Your task to perform on an android device: open sync settings in chrome Image 0: 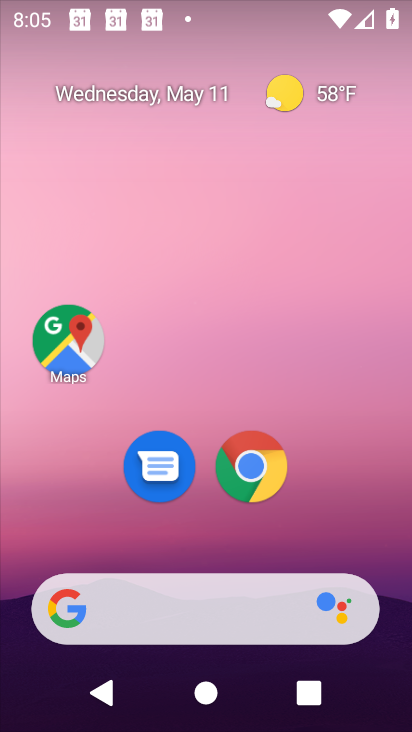
Step 0: click (238, 464)
Your task to perform on an android device: open sync settings in chrome Image 1: 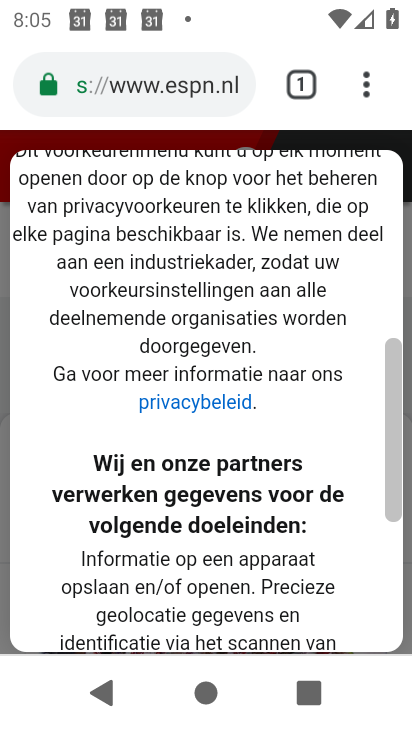
Step 1: click (350, 88)
Your task to perform on an android device: open sync settings in chrome Image 2: 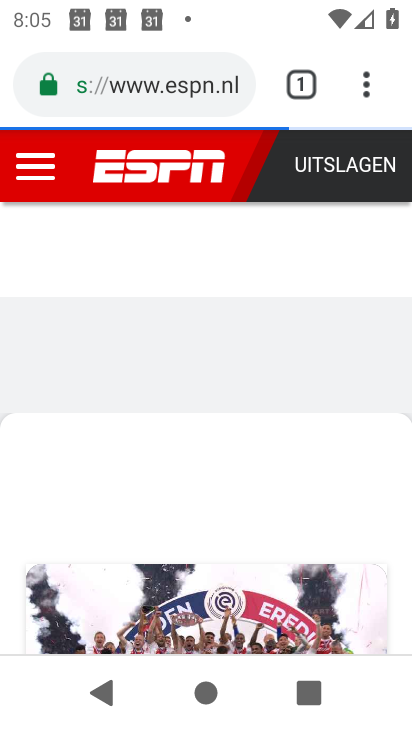
Step 2: click (379, 118)
Your task to perform on an android device: open sync settings in chrome Image 3: 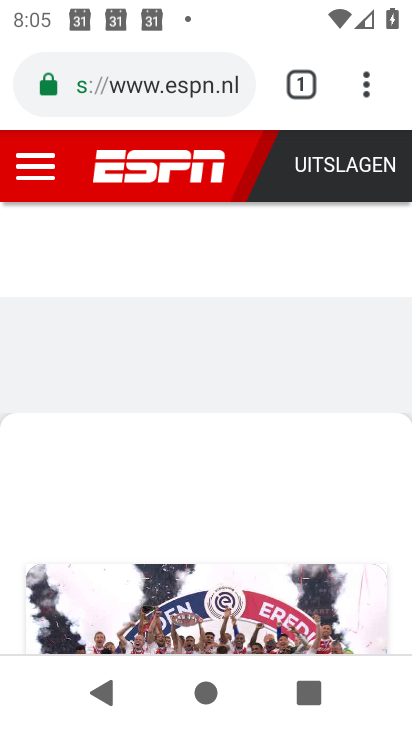
Step 3: click (404, 92)
Your task to perform on an android device: open sync settings in chrome Image 4: 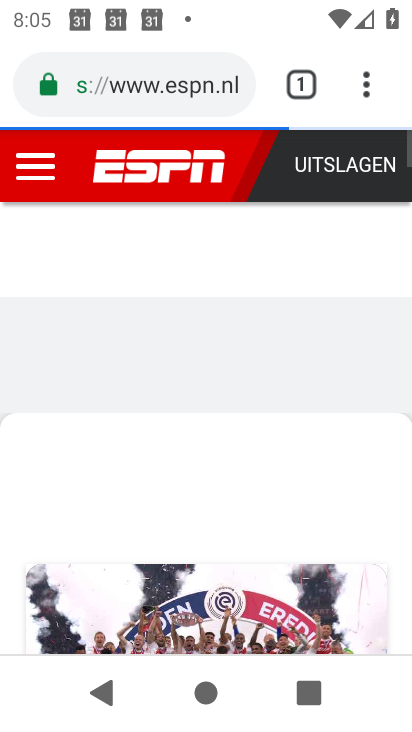
Step 4: click (400, 59)
Your task to perform on an android device: open sync settings in chrome Image 5: 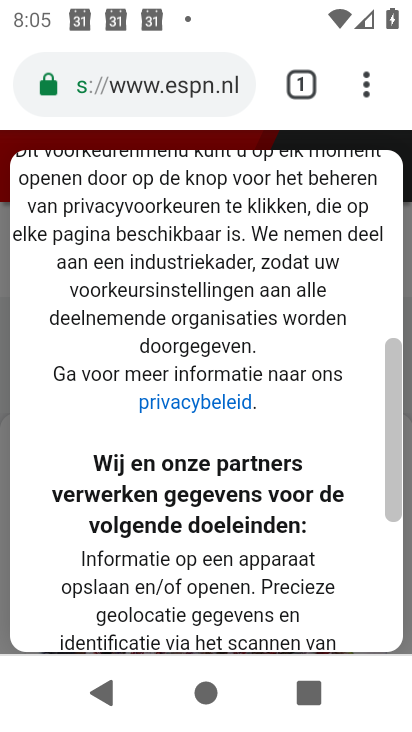
Step 5: click (373, 63)
Your task to perform on an android device: open sync settings in chrome Image 6: 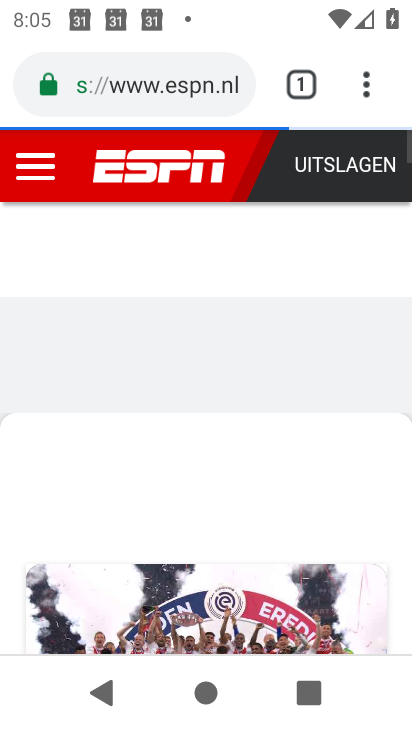
Step 6: click (359, 102)
Your task to perform on an android device: open sync settings in chrome Image 7: 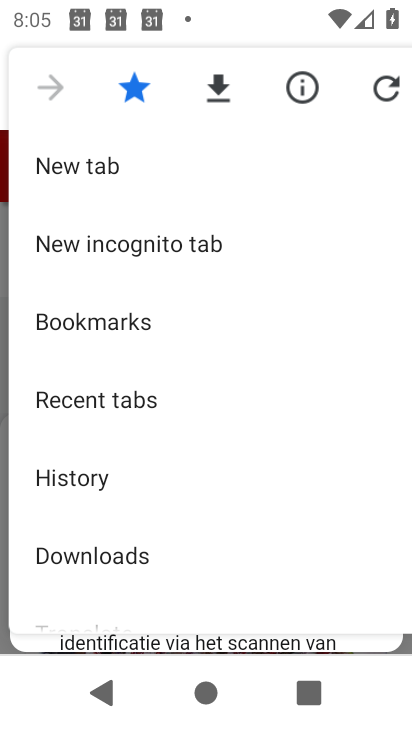
Step 7: drag from (85, 535) to (75, 353)
Your task to perform on an android device: open sync settings in chrome Image 8: 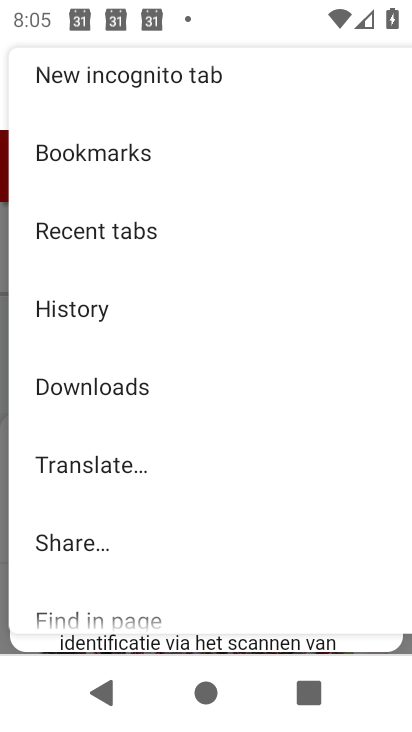
Step 8: drag from (126, 510) to (125, 380)
Your task to perform on an android device: open sync settings in chrome Image 9: 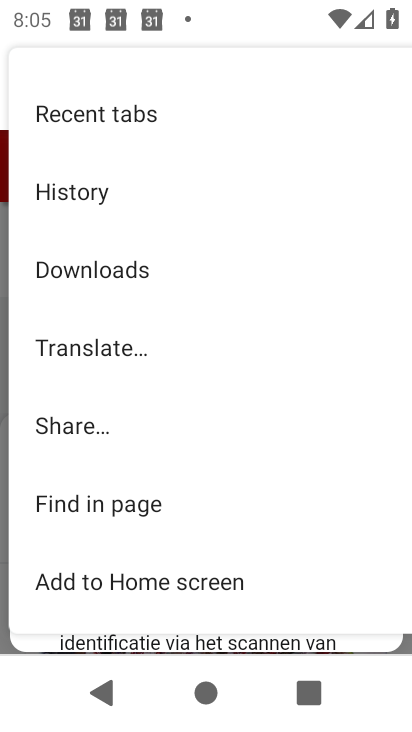
Step 9: drag from (124, 488) to (121, 370)
Your task to perform on an android device: open sync settings in chrome Image 10: 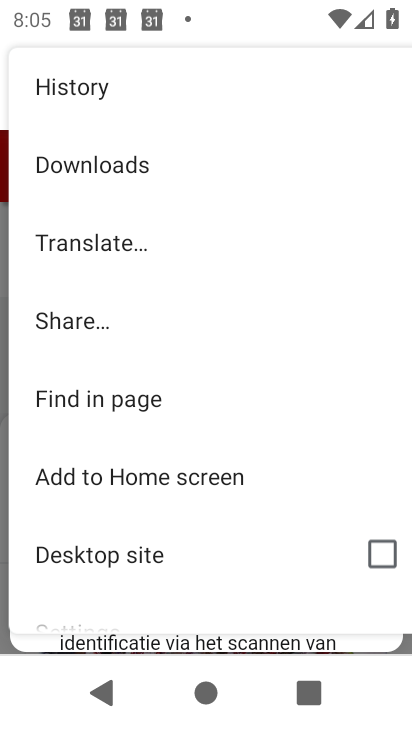
Step 10: drag from (141, 542) to (134, 384)
Your task to perform on an android device: open sync settings in chrome Image 11: 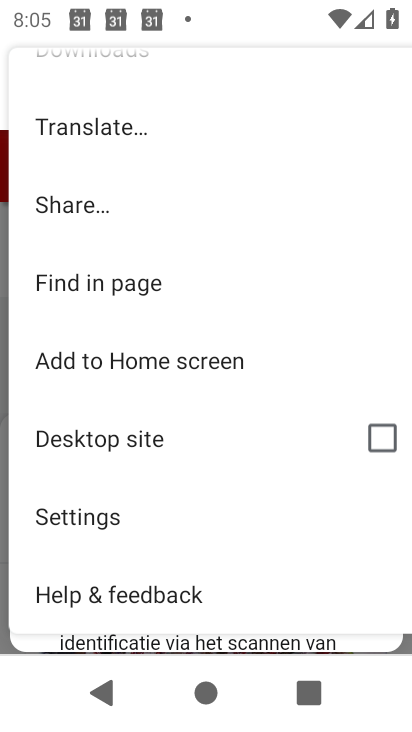
Step 11: click (115, 519)
Your task to perform on an android device: open sync settings in chrome Image 12: 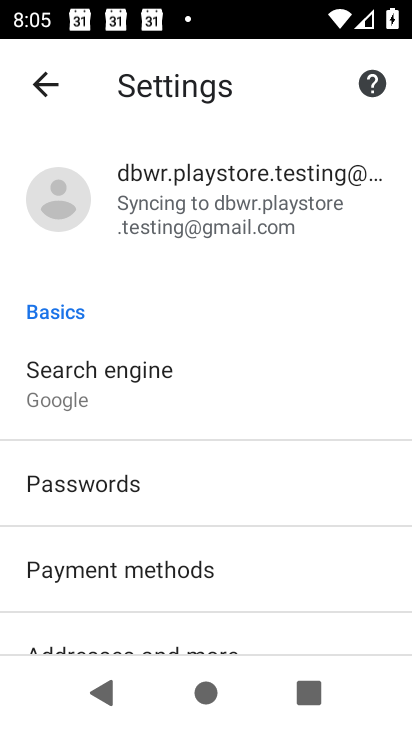
Step 12: drag from (103, 554) to (93, 452)
Your task to perform on an android device: open sync settings in chrome Image 13: 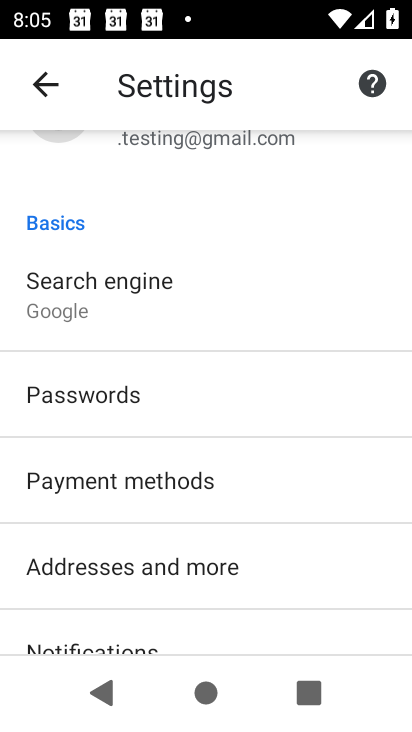
Step 13: drag from (101, 572) to (96, 711)
Your task to perform on an android device: open sync settings in chrome Image 14: 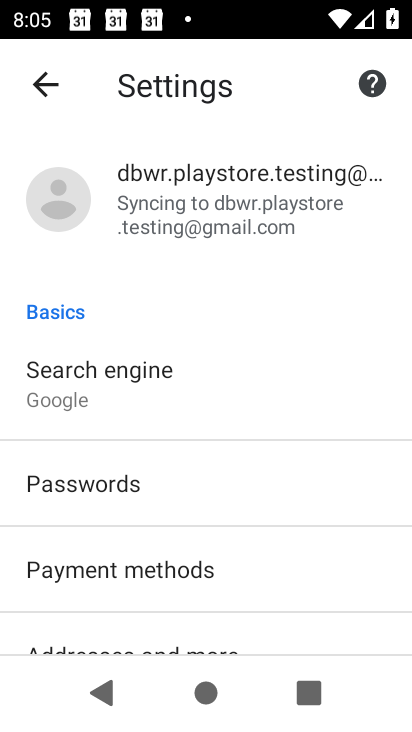
Step 14: click (210, 211)
Your task to perform on an android device: open sync settings in chrome Image 15: 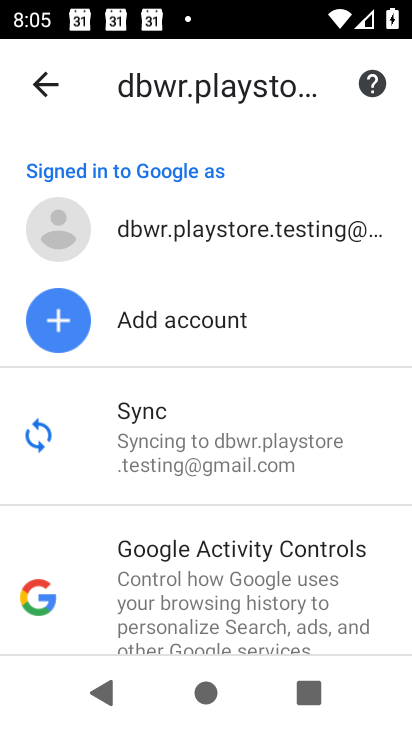
Step 15: click (160, 436)
Your task to perform on an android device: open sync settings in chrome Image 16: 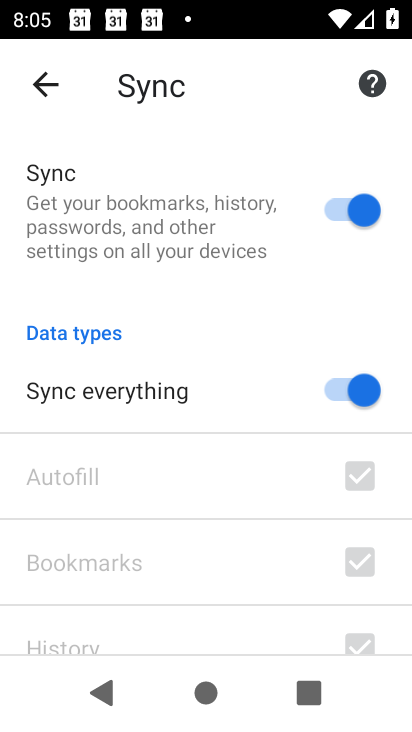
Step 16: task complete